Your task to perform on an android device: What does the iPhone 8 look like? Image 0: 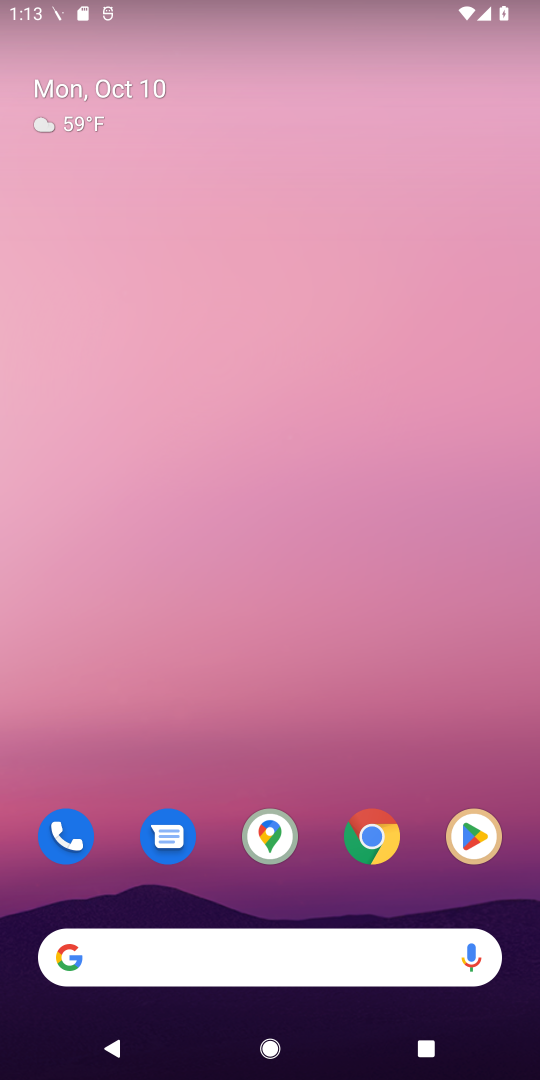
Step 0: click (372, 831)
Your task to perform on an android device: What does the iPhone 8 look like? Image 1: 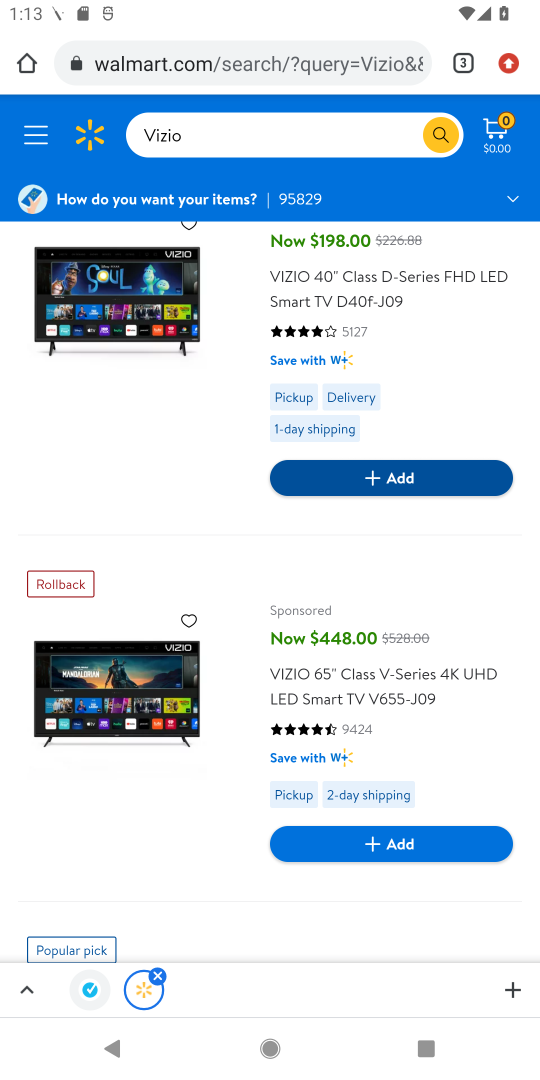
Step 1: click (298, 48)
Your task to perform on an android device: What does the iPhone 8 look like? Image 2: 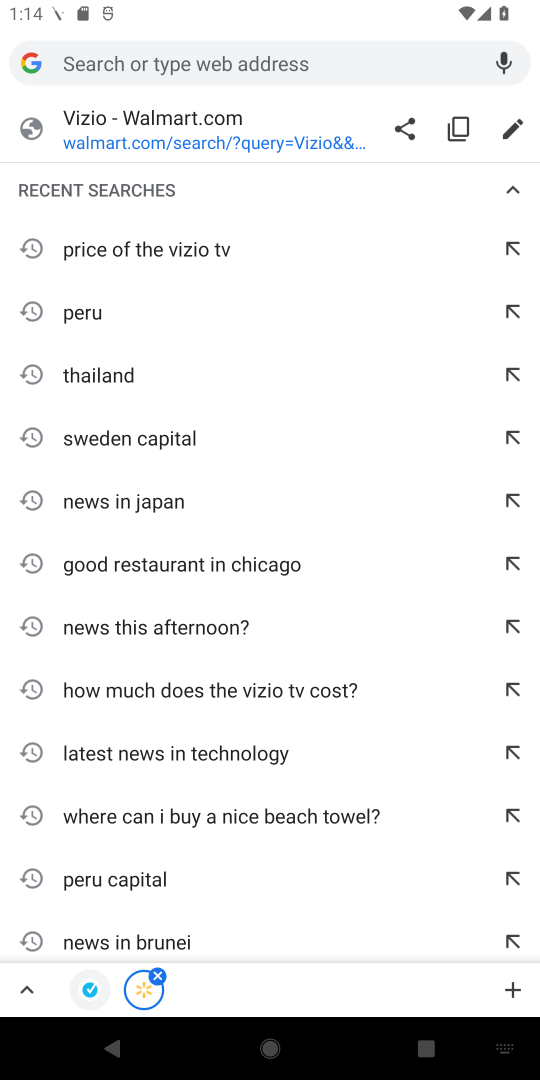
Step 2: type "What does the iPhone 8 look like?"
Your task to perform on an android device: What does the iPhone 8 look like? Image 3: 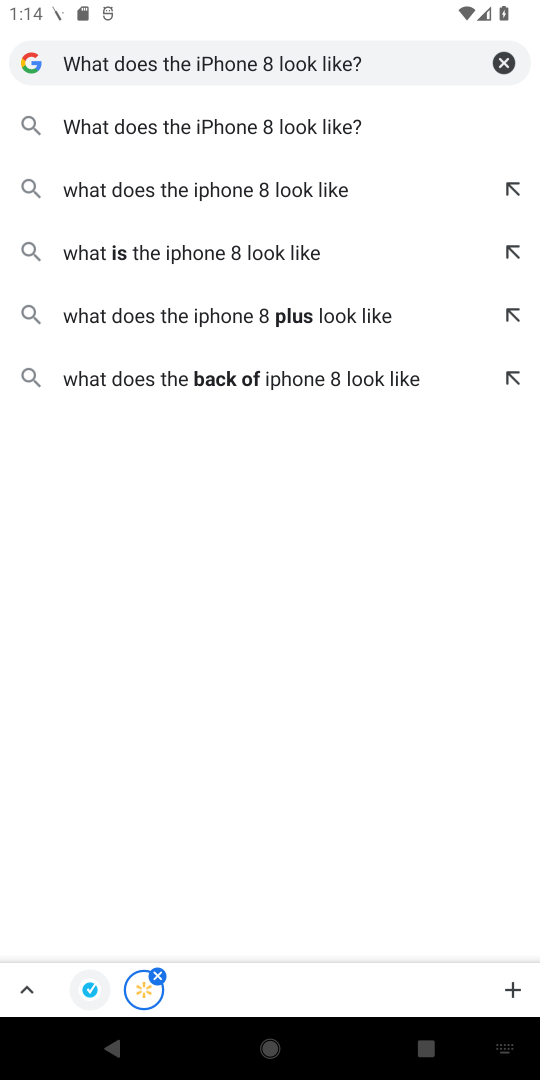
Step 3: click (386, 121)
Your task to perform on an android device: What does the iPhone 8 look like? Image 4: 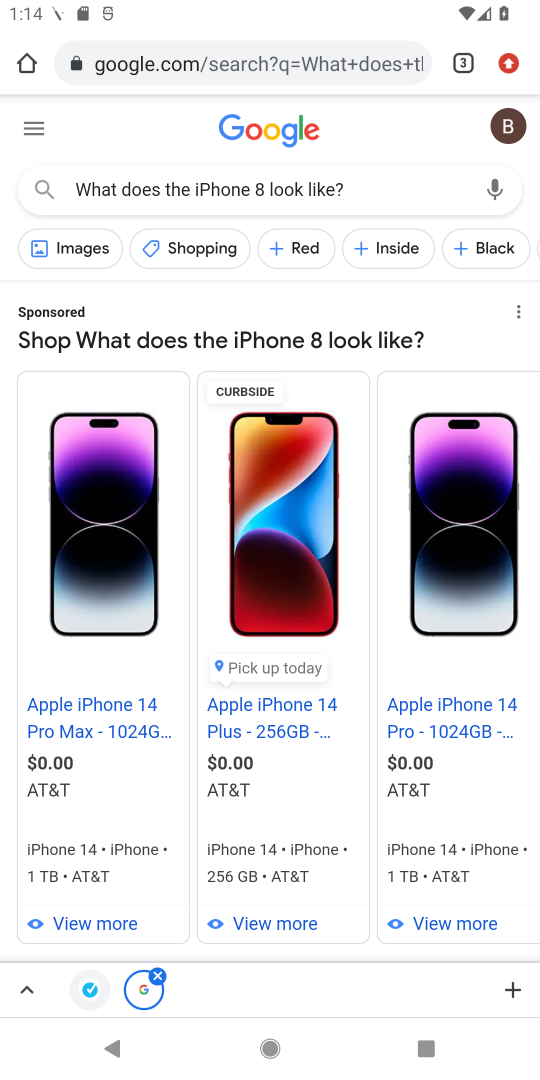
Step 4: task complete